Your task to perform on an android device: Open ESPN.com Image 0: 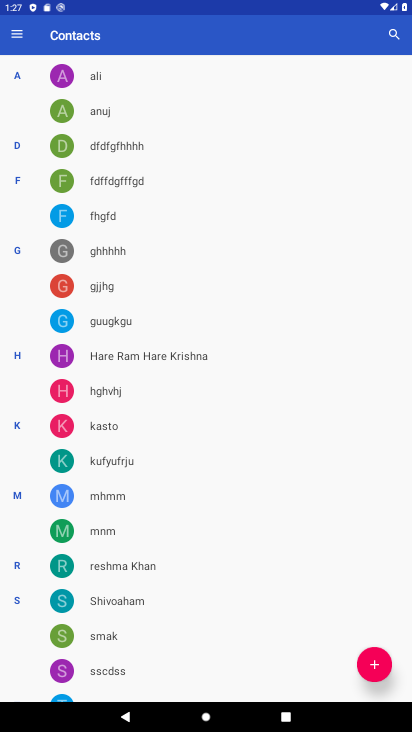
Step 0: press home button
Your task to perform on an android device: Open ESPN.com Image 1: 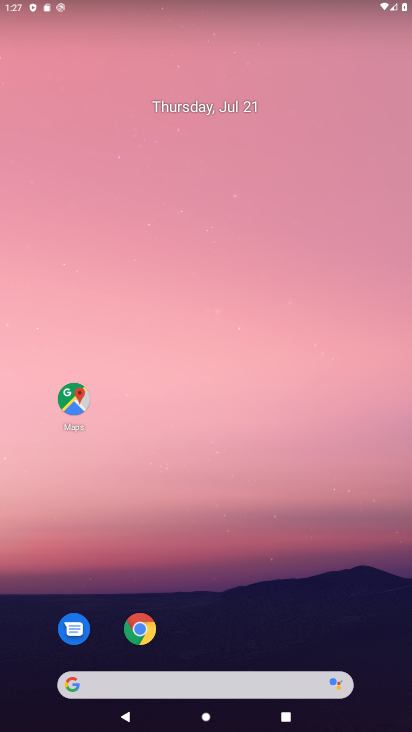
Step 1: click (142, 630)
Your task to perform on an android device: Open ESPN.com Image 2: 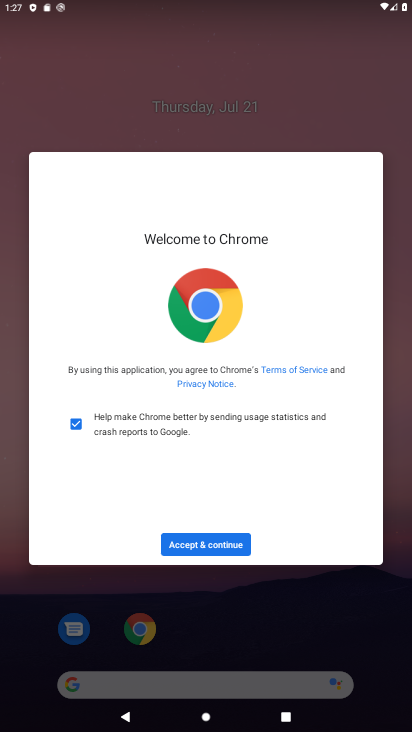
Step 2: click (193, 536)
Your task to perform on an android device: Open ESPN.com Image 3: 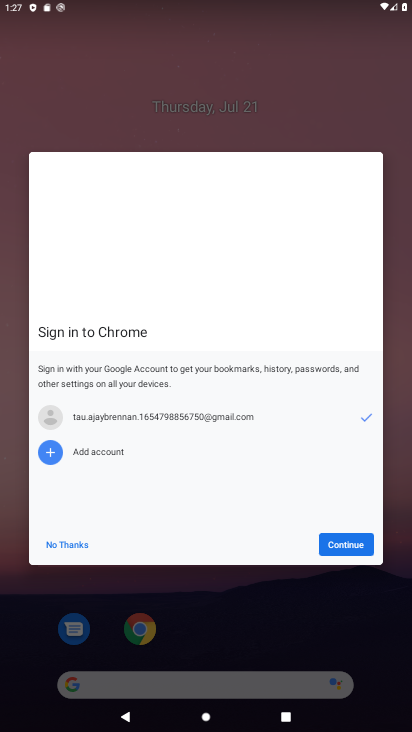
Step 3: click (345, 542)
Your task to perform on an android device: Open ESPN.com Image 4: 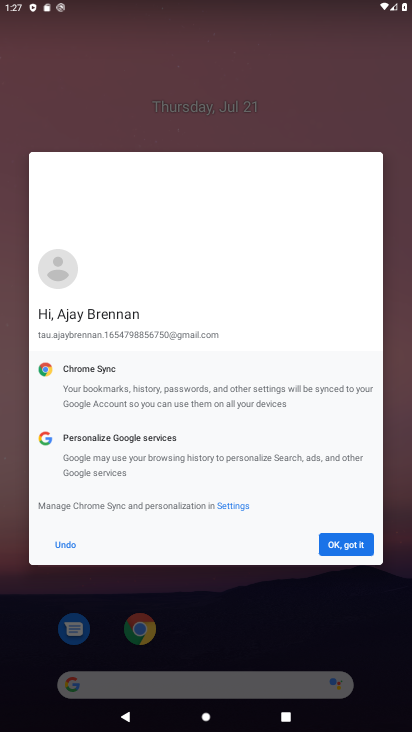
Step 4: click (341, 550)
Your task to perform on an android device: Open ESPN.com Image 5: 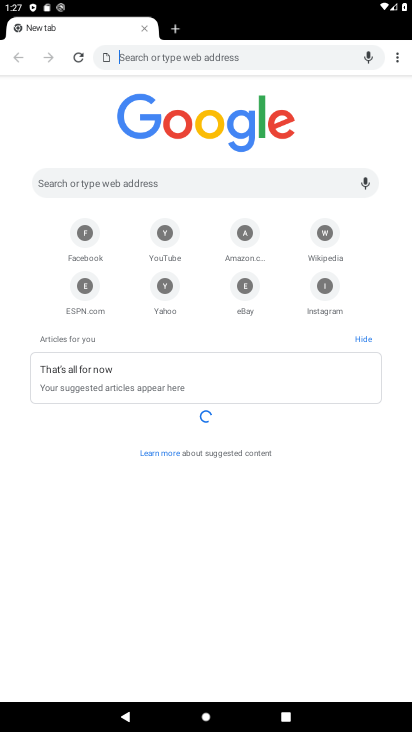
Step 5: click (171, 174)
Your task to perform on an android device: Open ESPN.com Image 6: 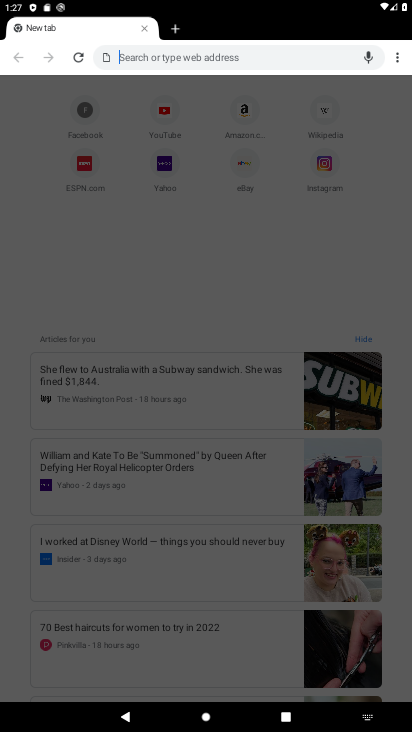
Step 6: type "ESPN.com"
Your task to perform on an android device: Open ESPN.com Image 7: 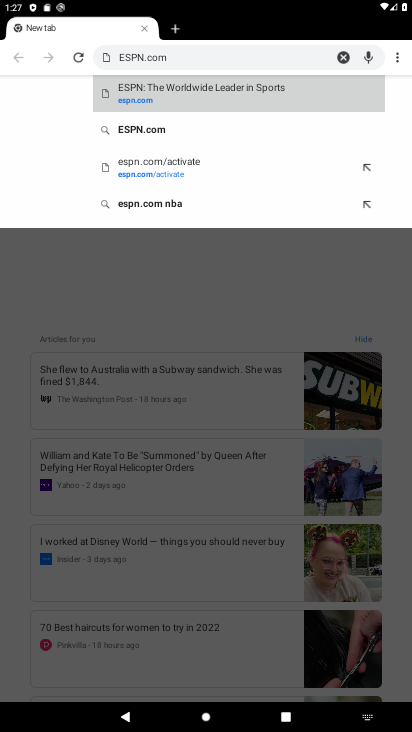
Step 7: click (140, 92)
Your task to perform on an android device: Open ESPN.com Image 8: 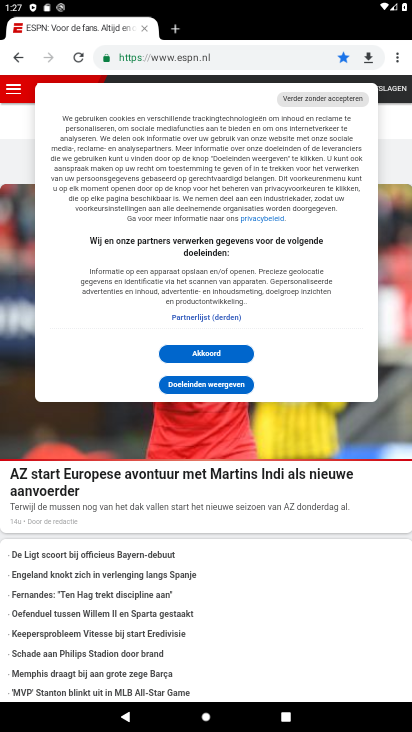
Step 8: drag from (248, 610) to (241, 260)
Your task to perform on an android device: Open ESPN.com Image 9: 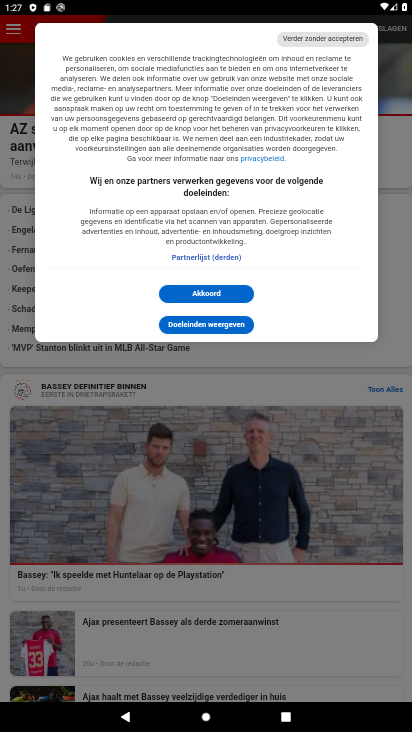
Step 9: click (207, 288)
Your task to perform on an android device: Open ESPN.com Image 10: 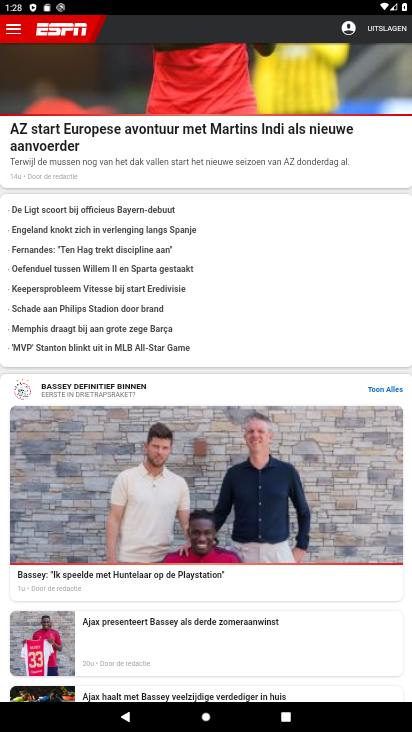
Step 10: task complete